Your task to perform on an android device: Add "razer huntsman" to the cart on target, then select checkout. Image 0: 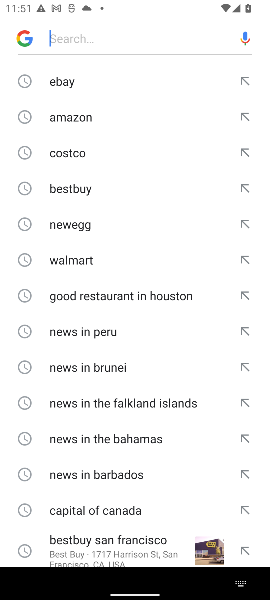
Step 0: click (113, 42)
Your task to perform on an android device: Add "razer huntsman" to the cart on target, then select checkout. Image 1: 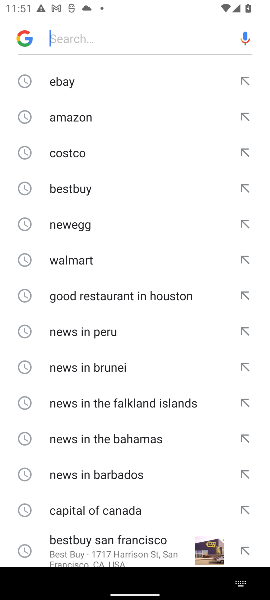
Step 1: type "target.com"
Your task to perform on an android device: Add "razer huntsman" to the cart on target, then select checkout. Image 2: 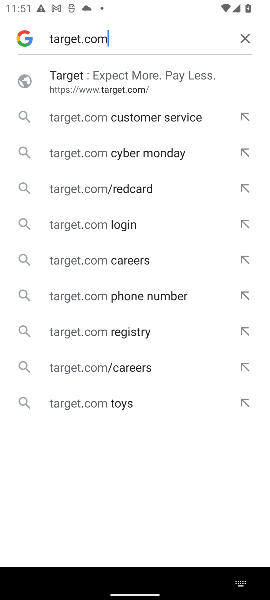
Step 2: click (81, 85)
Your task to perform on an android device: Add "razer huntsman" to the cart on target, then select checkout. Image 3: 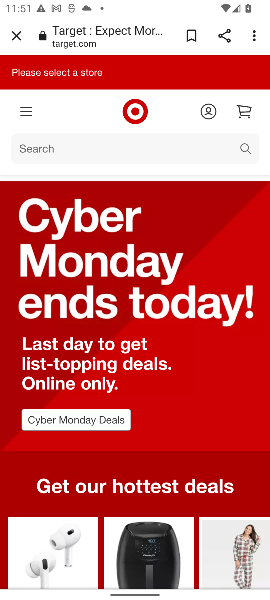
Step 3: click (93, 147)
Your task to perform on an android device: Add "razer huntsman" to the cart on target, then select checkout. Image 4: 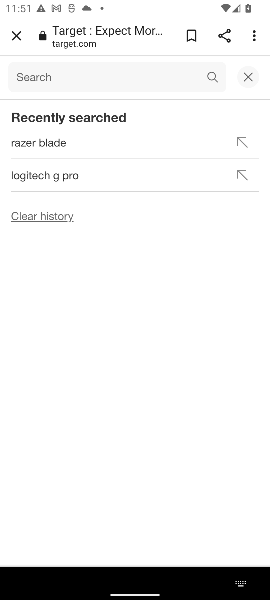
Step 4: type "razer huntsman"
Your task to perform on an android device: Add "razer huntsman" to the cart on target, then select checkout. Image 5: 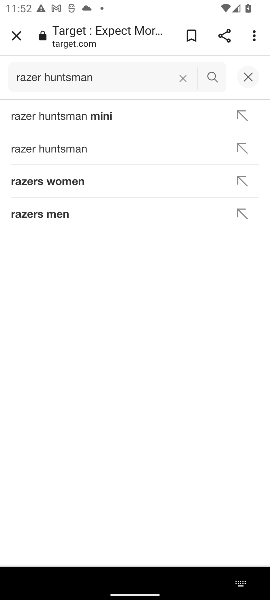
Step 5: click (71, 152)
Your task to perform on an android device: Add "razer huntsman" to the cart on target, then select checkout. Image 6: 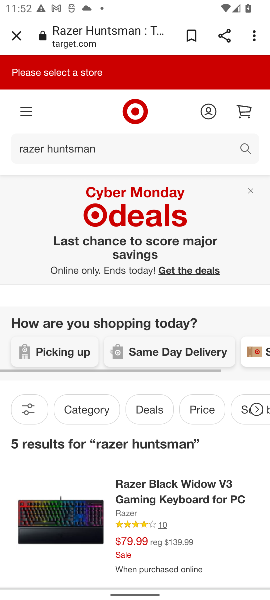
Step 6: drag from (211, 496) to (202, 238)
Your task to perform on an android device: Add "razer huntsman" to the cart on target, then select checkout. Image 7: 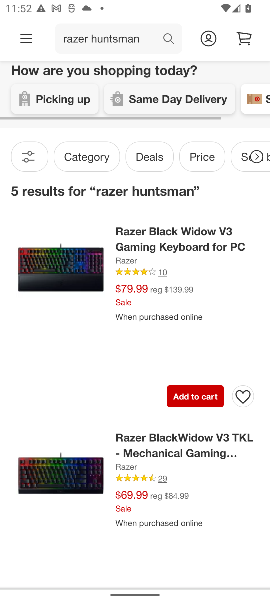
Step 7: drag from (167, 465) to (180, 249)
Your task to perform on an android device: Add "razer huntsman" to the cart on target, then select checkout. Image 8: 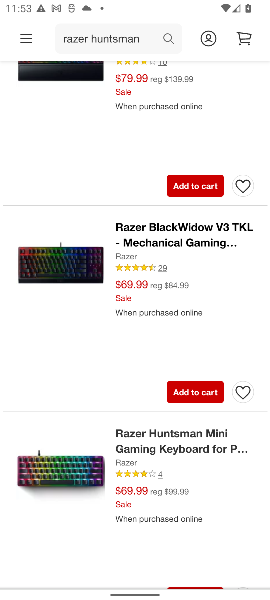
Step 8: click (131, 450)
Your task to perform on an android device: Add "razer huntsman" to the cart on target, then select checkout. Image 9: 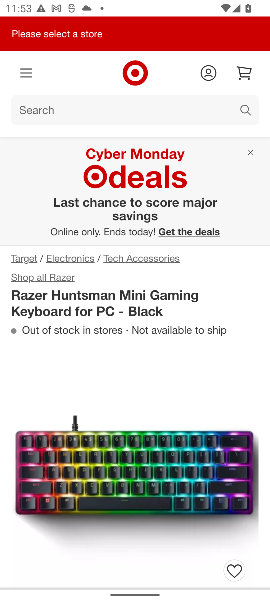
Step 9: drag from (133, 470) to (138, 172)
Your task to perform on an android device: Add "razer huntsman" to the cart on target, then select checkout. Image 10: 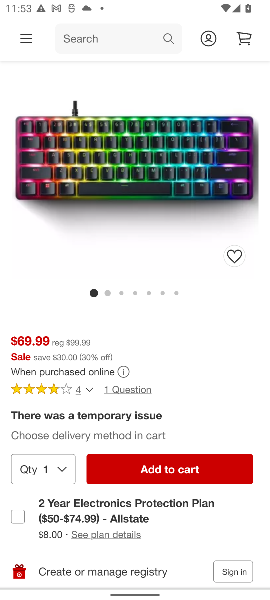
Step 10: click (170, 464)
Your task to perform on an android device: Add "razer huntsman" to the cart on target, then select checkout. Image 11: 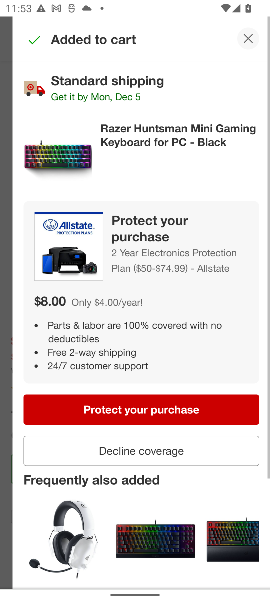
Step 11: click (252, 44)
Your task to perform on an android device: Add "razer huntsman" to the cart on target, then select checkout. Image 12: 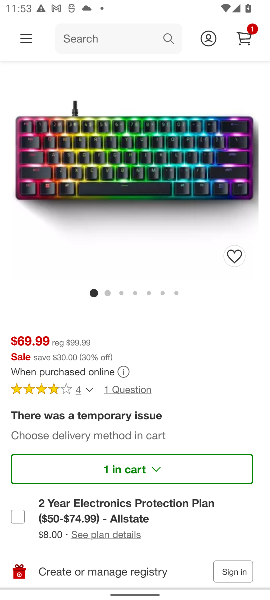
Step 12: click (241, 36)
Your task to perform on an android device: Add "razer huntsman" to the cart on target, then select checkout. Image 13: 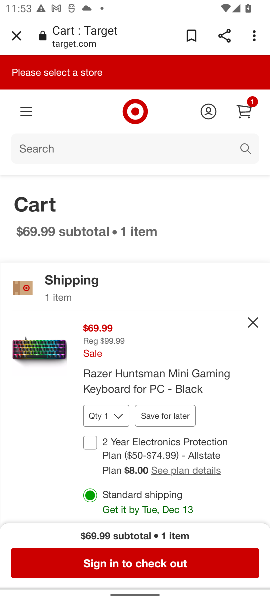
Step 13: click (134, 566)
Your task to perform on an android device: Add "razer huntsman" to the cart on target, then select checkout. Image 14: 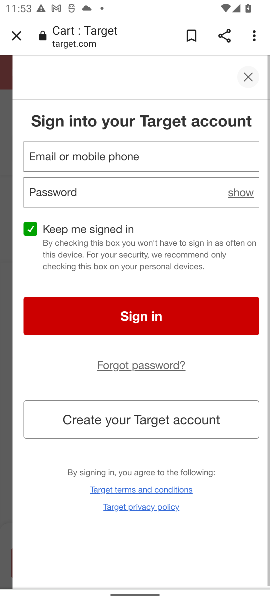
Step 14: task complete